Your task to perform on an android device: Check the weather Image 0: 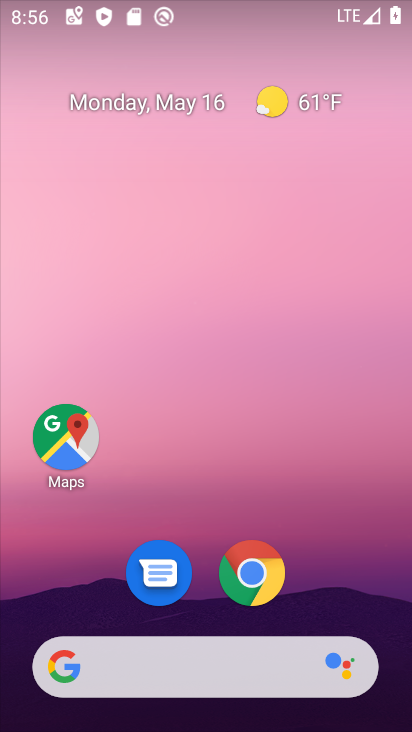
Step 0: click (273, 90)
Your task to perform on an android device: Check the weather Image 1: 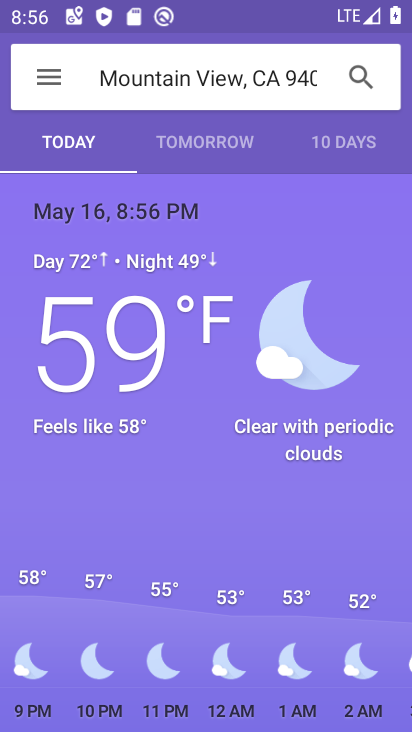
Step 1: task complete